Your task to perform on an android device: change the clock display to digital Image 0: 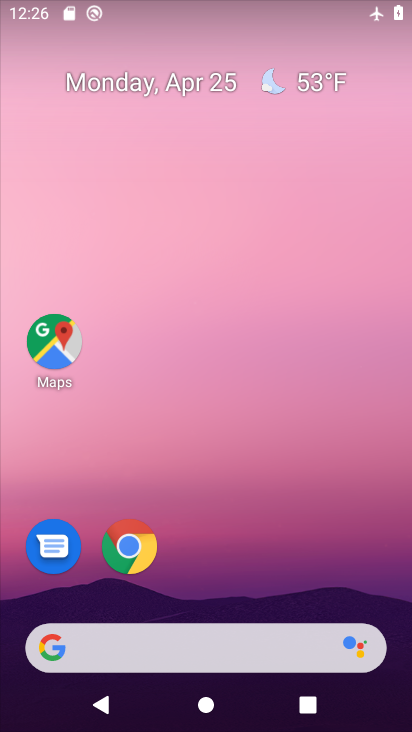
Step 0: drag from (176, 574) to (194, 191)
Your task to perform on an android device: change the clock display to digital Image 1: 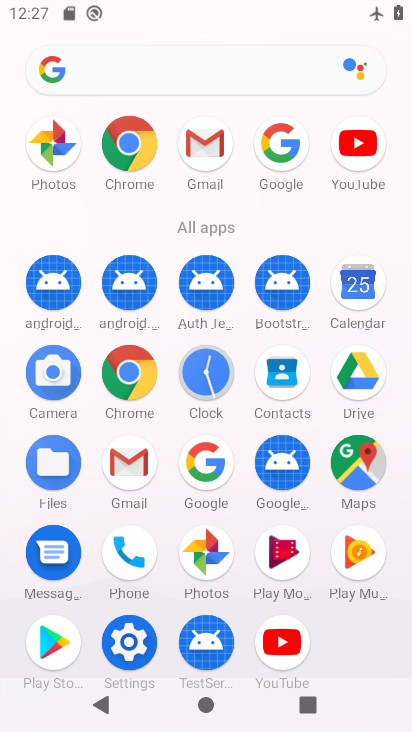
Step 1: click (211, 383)
Your task to perform on an android device: change the clock display to digital Image 2: 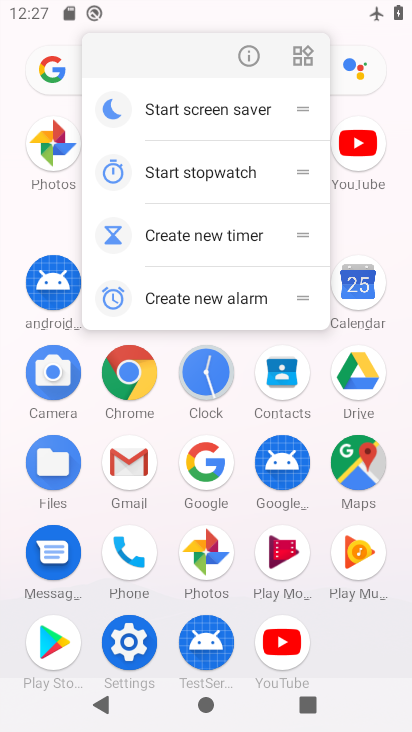
Step 2: click (211, 383)
Your task to perform on an android device: change the clock display to digital Image 3: 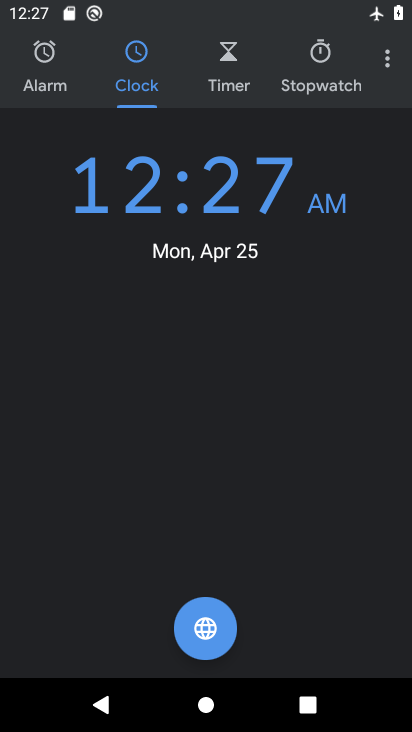
Step 3: click (390, 58)
Your task to perform on an android device: change the clock display to digital Image 4: 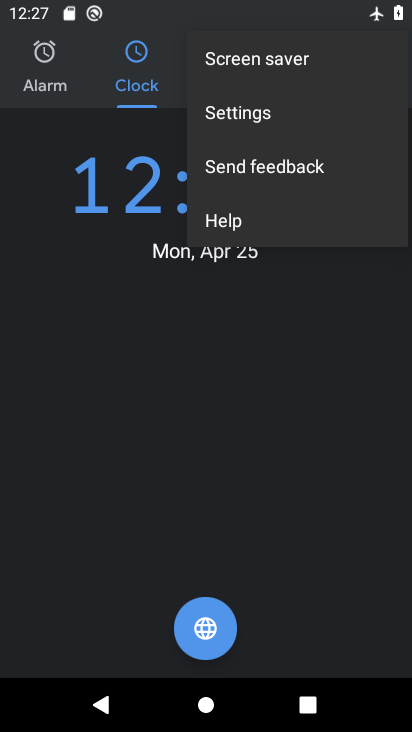
Step 4: click (286, 120)
Your task to perform on an android device: change the clock display to digital Image 5: 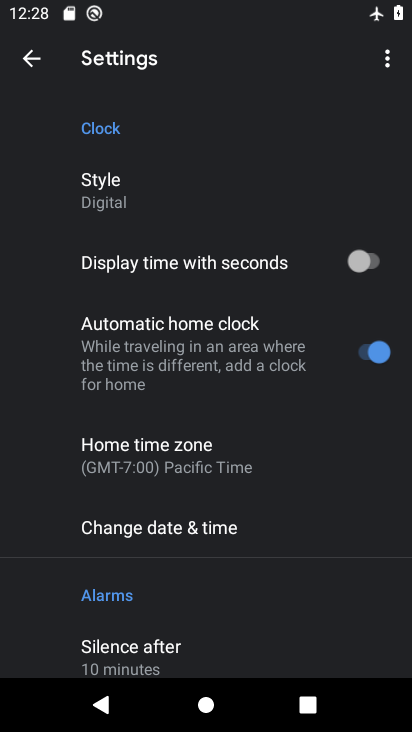
Step 5: click (104, 191)
Your task to perform on an android device: change the clock display to digital Image 6: 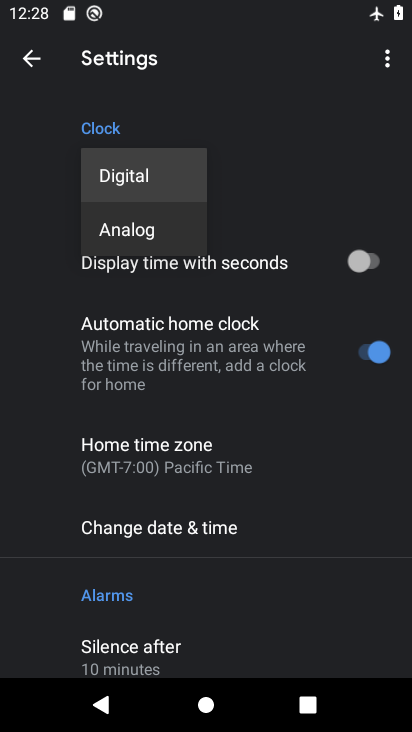
Step 6: task complete